Your task to perform on an android device: Open Chrome and go to settings Image 0: 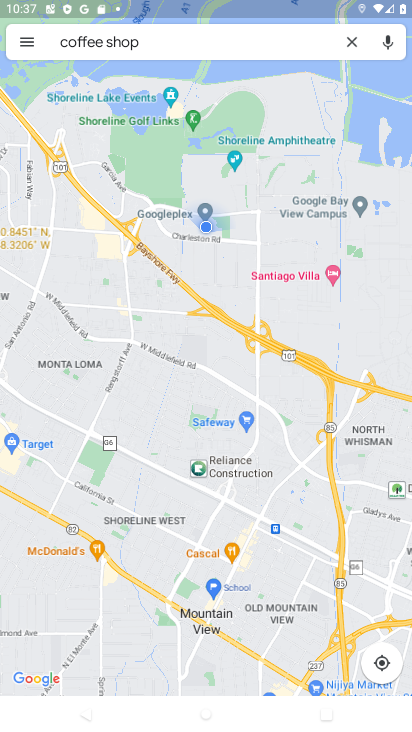
Step 0: press home button
Your task to perform on an android device: Open Chrome and go to settings Image 1: 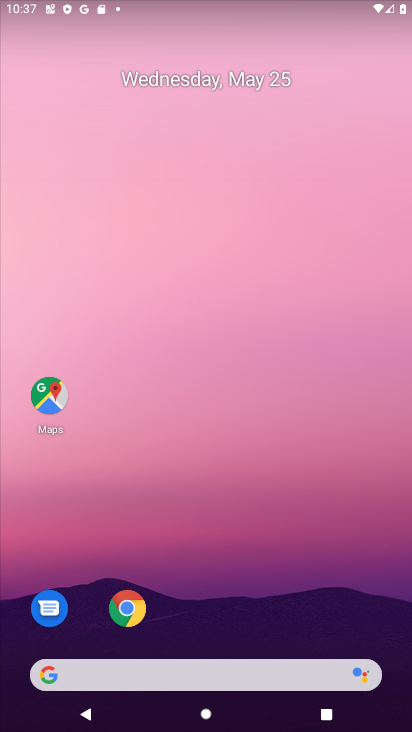
Step 1: click (131, 608)
Your task to perform on an android device: Open Chrome and go to settings Image 2: 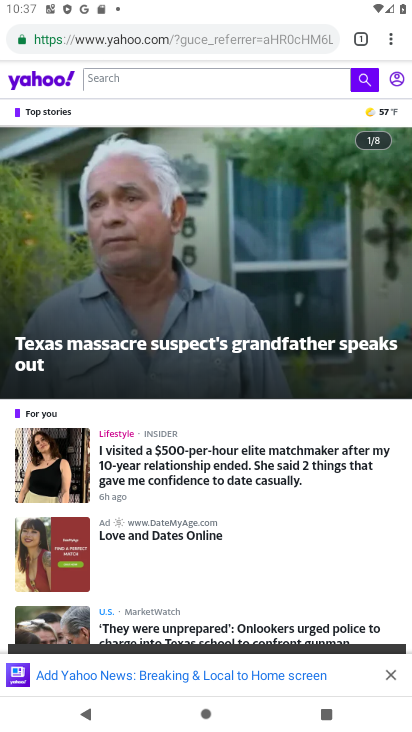
Step 2: task complete